Your task to perform on an android device: turn off priority inbox in the gmail app Image 0: 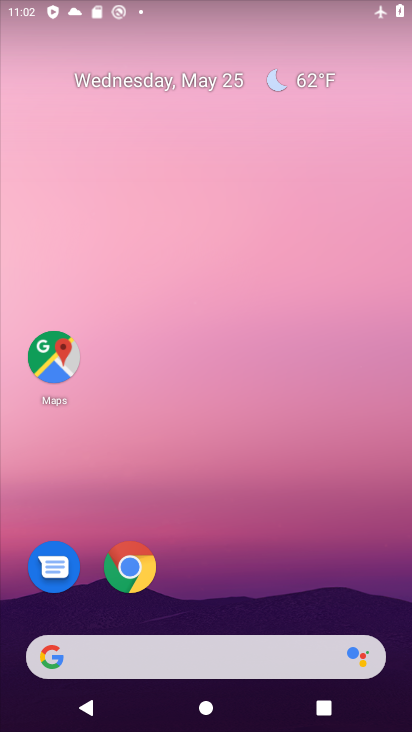
Step 0: drag from (385, 602) to (250, 57)
Your task to perform on an android device: turn off priority inbox in the gmail app Image 1: 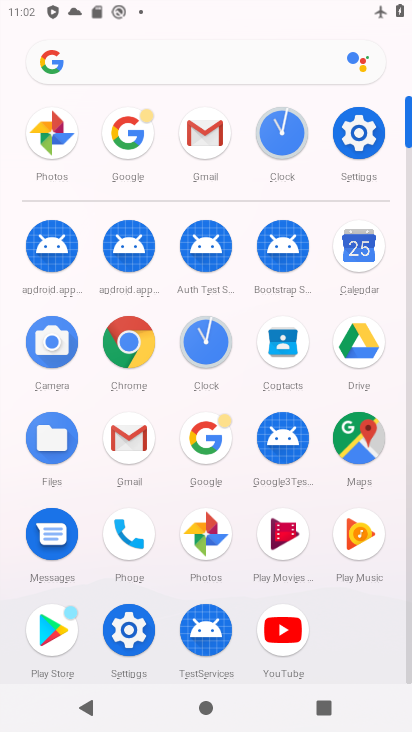
Step 1: click (114, 443)
Your task to perform on an android device: turn off priority inbox in the gmail app Image 2: 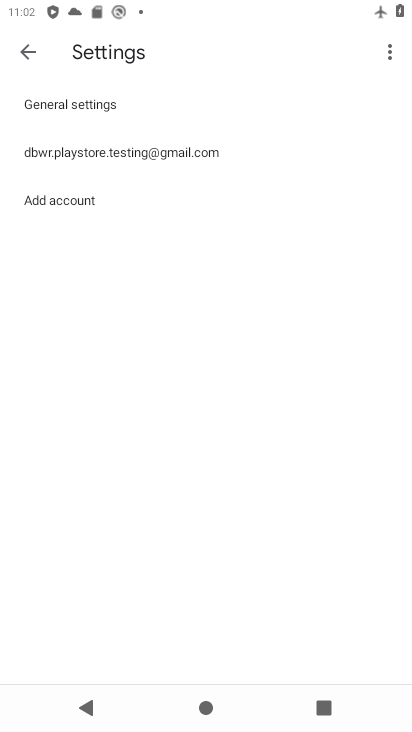
Step 2: click (63, 144)
Your task to perform on an android device: turn off priority inbox in the gmail app Image 3: 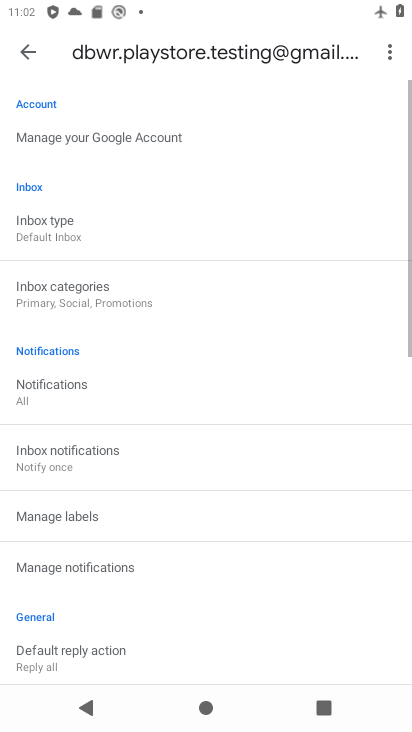
Step 3: click (113, 229)
Your task to perform on an android device: turn off priority inbox in the gmail app Image 4: 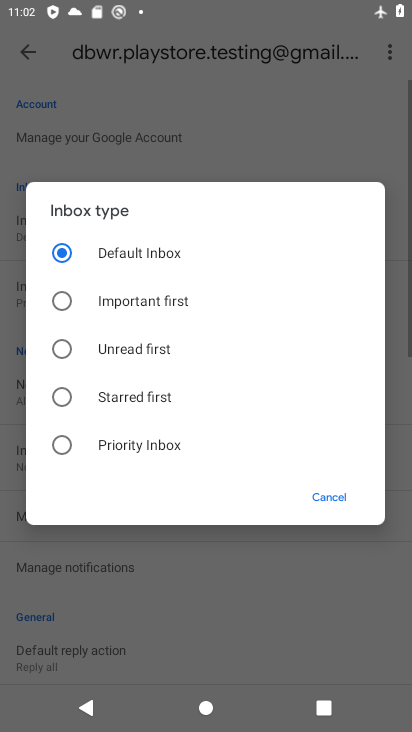
Step 4: click (132, 250)
Your task to perform on an android device: turn off priority inbox in the gmail app Image 5: 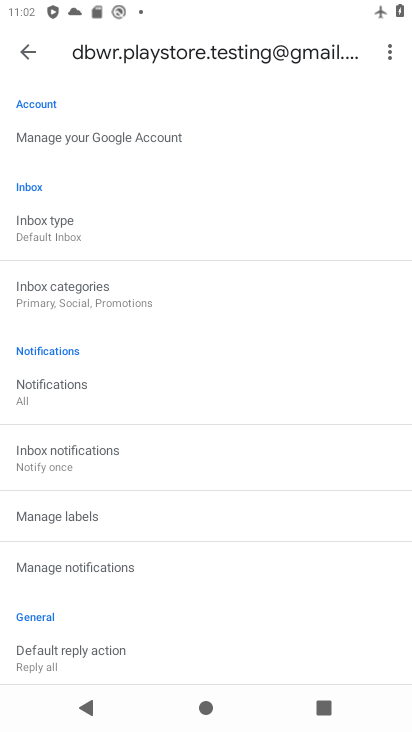
Step 5: task complete